Your task to perform on an android device: remove spam from my inbox in the gmail app Image 0: 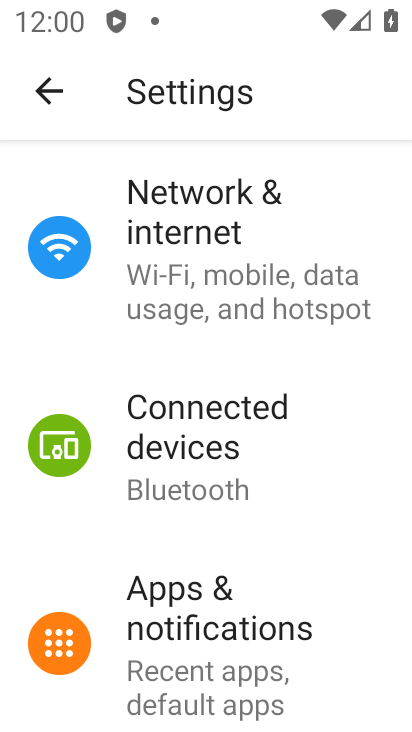
Step 0: press home button
Your task to perform on an android device: remove spam from my inbox in the gmail app Image 1: 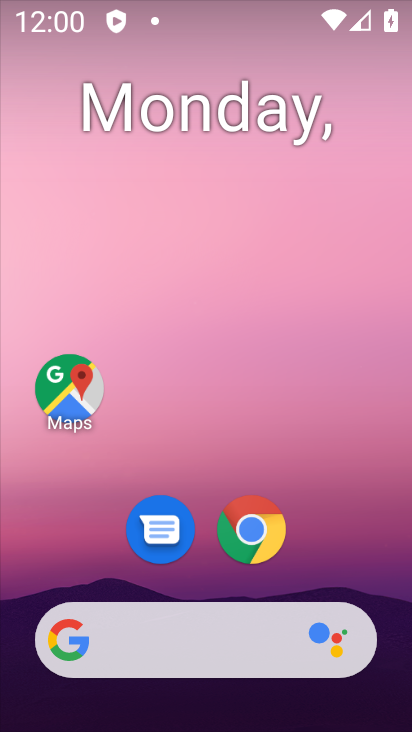
Step 1: drag from (201, 630) to (190, 87)
Your task to perform on an android device: remove spam from my inbox in the gmail app Image 2: 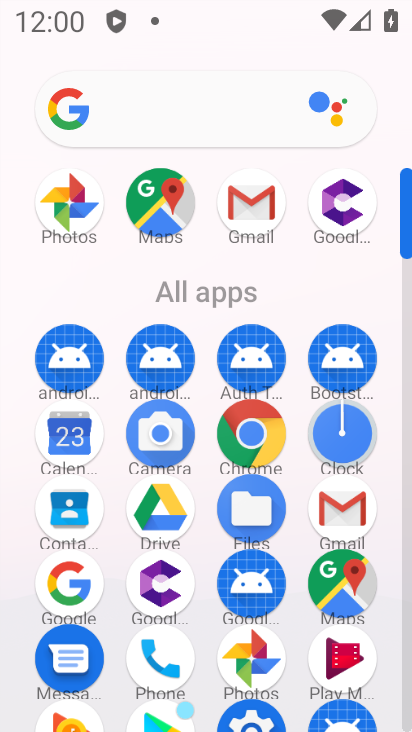
Step 2: click (226, 224)
Your task to perform on an android device: remove spam from my inbox in the gmail app Image 3: 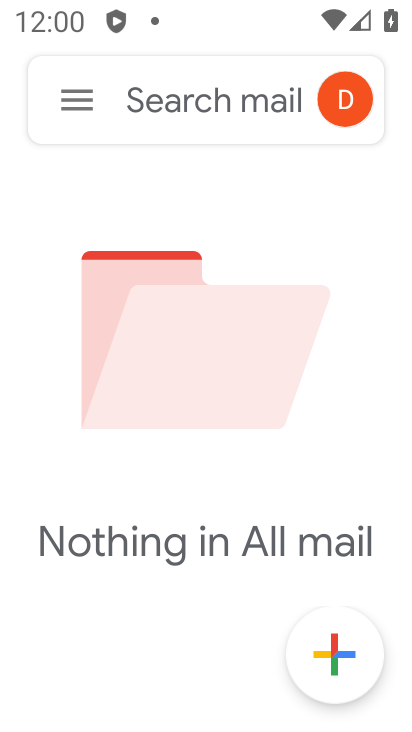
Step 3: click (73, 101)
Your task to perform on an android device: remove spam from my inbox in the gmail app Image 4: 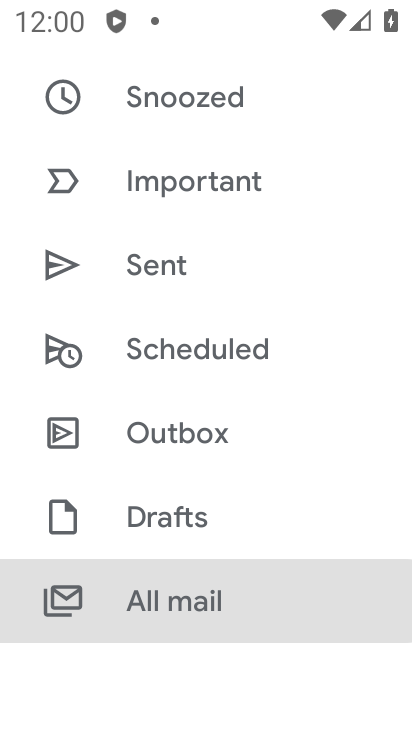
Step 4: drag from (182, 86) to (227, 698)
Your task to perform on an android device: remove spam from my inbox in the gmail app Image 5: 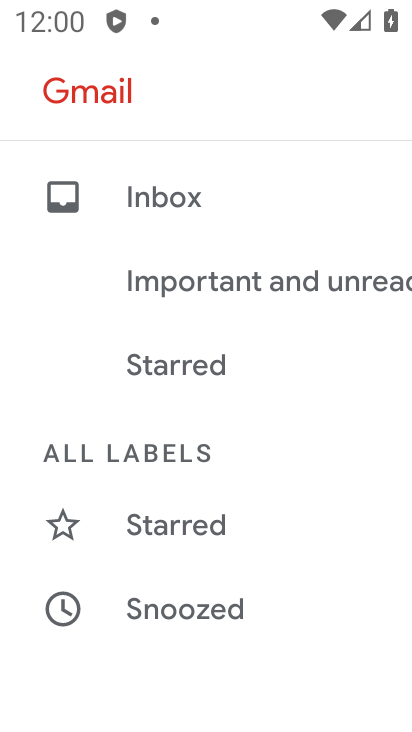
Step 5: drag from (171, 565) to (110, 36)
Your task to perform on an android device: remove spam from my inbox in the gmail app Image 6: 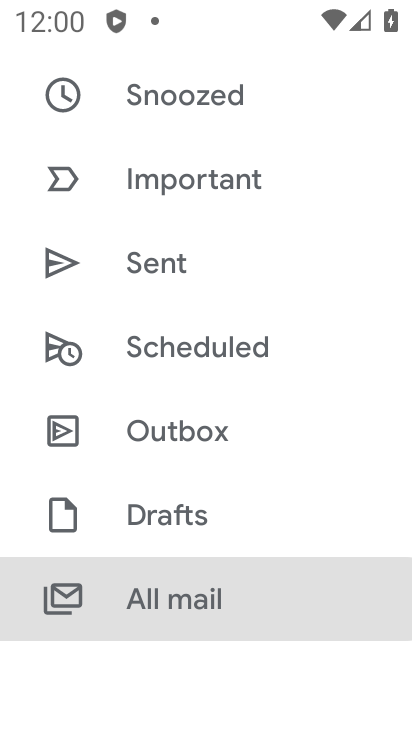
Step 6: drag from (148, 554) to (142, 17)
Your task to perform on an android device: remove spam from my inbox in the gmail app Image 7: 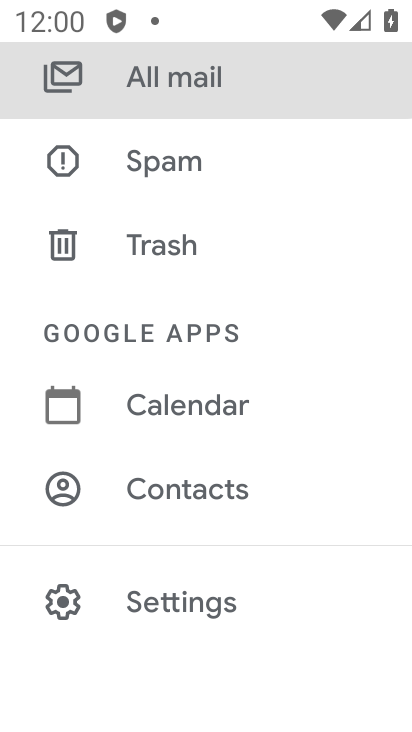
Step 7: click (182, 157)
Your task to perform on an android device: remove spam from my inbox in the gmail app Image 8: 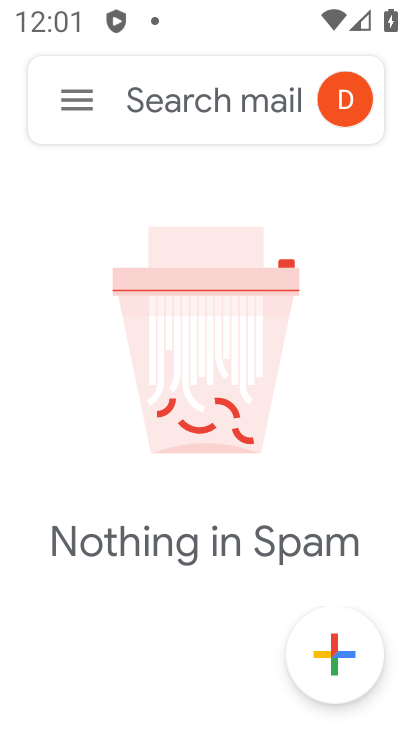
Step 8: task complete